Your task to perform on an android device: turn on airplane mode Image 0: 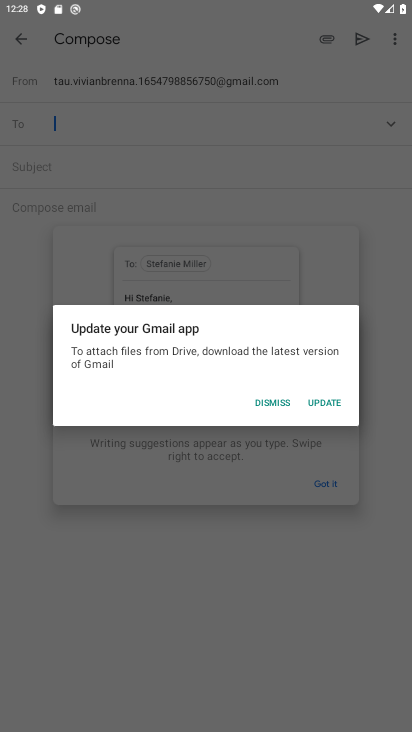
Step 0: press home button
Your task to perform on an android device: turn on airplane mode Image 1: 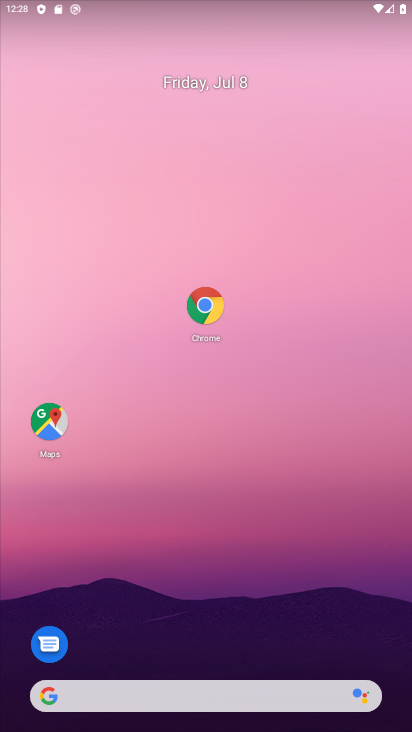
Step 1: drag from (209, 3) to (237, 523)
Your task to perform on an android device: turn on airplane mode Image 2: 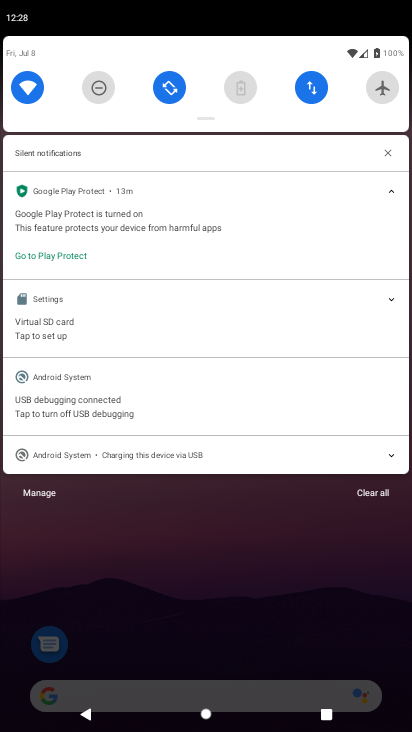
Step 2: click (375, 76)
Your task to perform on an android device: turn on airplane mode Image 3: 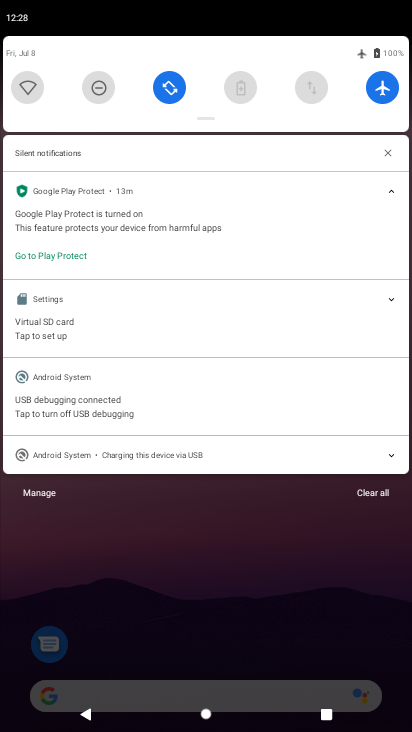
Step 3: task complete